Your task to perform on an android device: all mails in gmail Image 0: 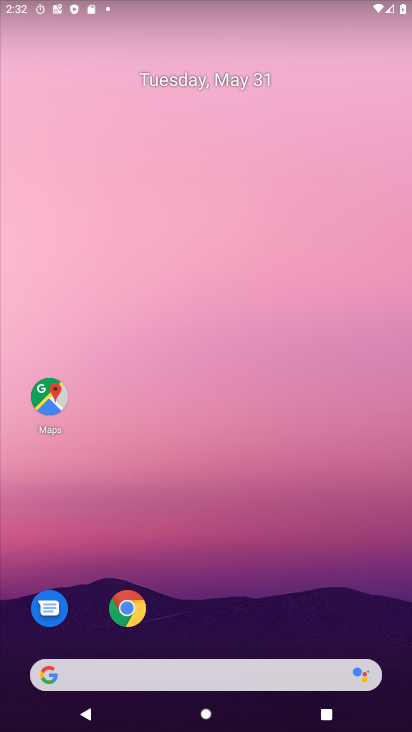
Step 0: drag from (201, 630) to (236, 275)
Your task to perform on an android device: all mails in gmail Image 1: 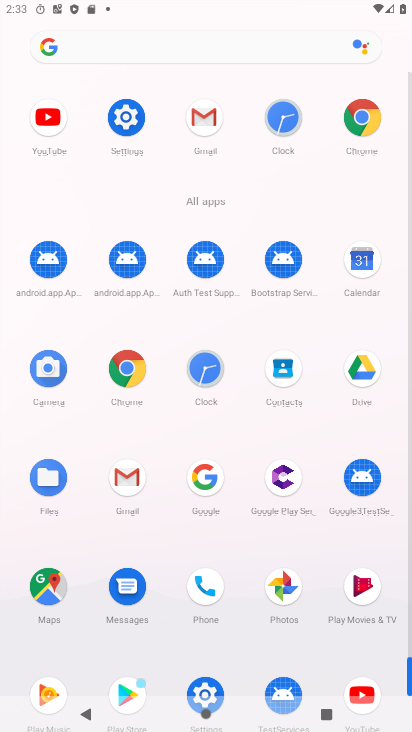
Step 1: click (126, 506)
Your task to perform on an android device: all mails in gmail Image 2: 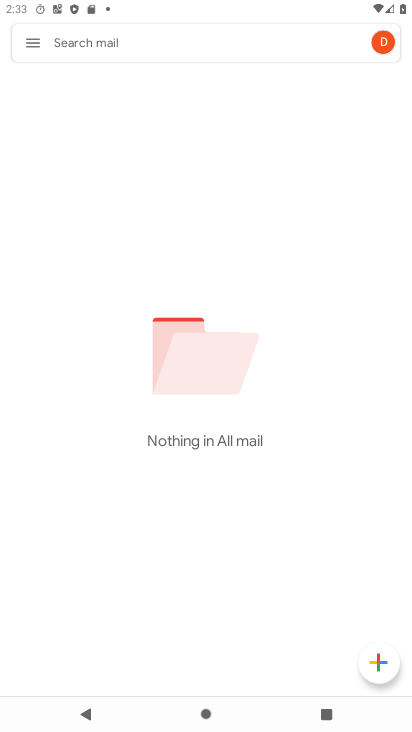
Step 2: task complete